Your task to perform on an android device: turn off airplane mode Image 0: 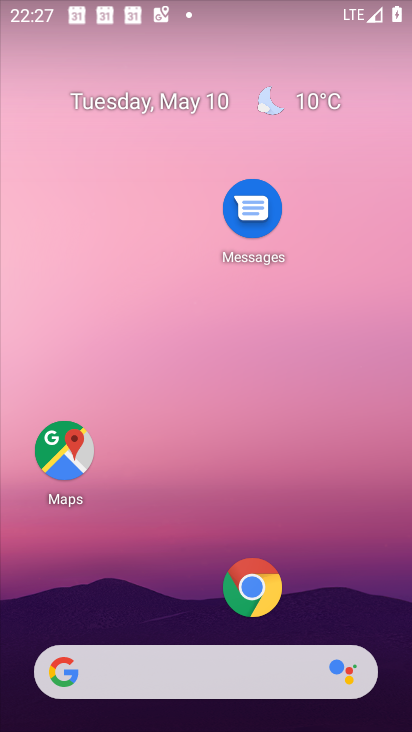
Step 0: drag from (192, 547) to (241, 38)
Your task to perform on an android device: turn off airplane mode Image 1: 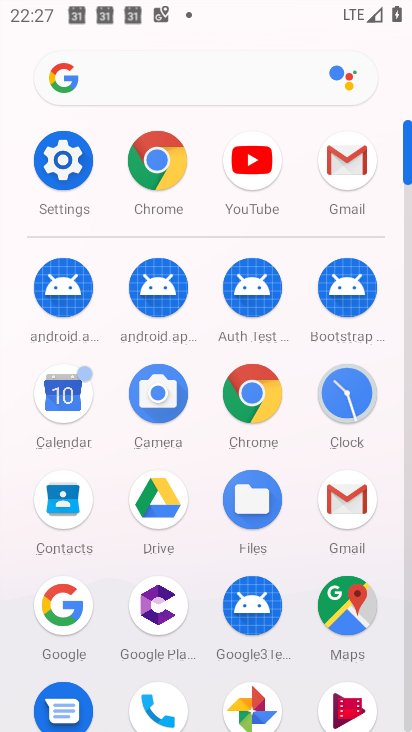
Step 1: click (53, 137)
Your task to perform on an android device: turn off airplane mode Image 2: 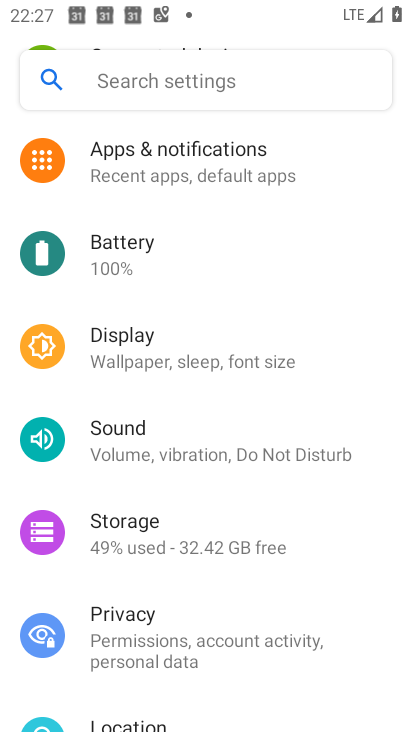
Step 2: drag from (188, 242) to (177, 688)
Your task to perform on an android device: turn off airplane mode Image 3: 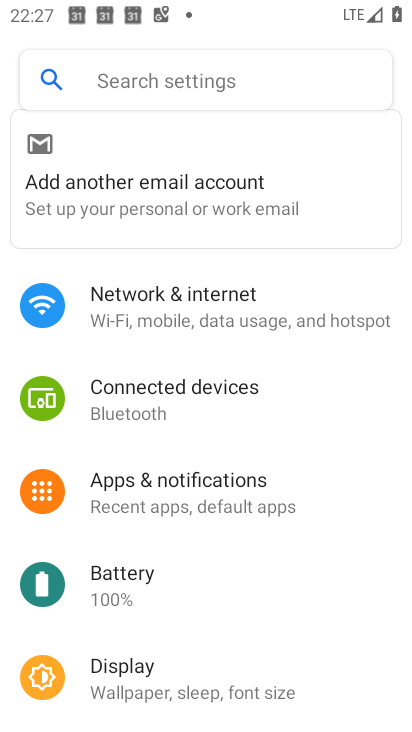
Step 3: click (187, 322)
Your task to perform on an android device: turn off airplane mode Image 4: 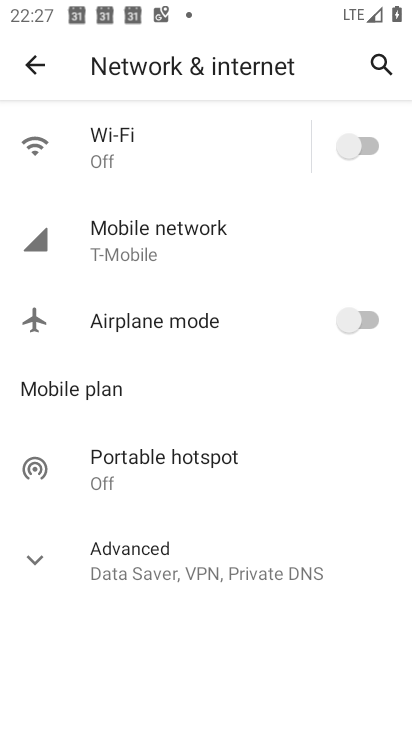
Step 4: task complete